Your task to perform on an android device: Go to wifi settings Image 0: 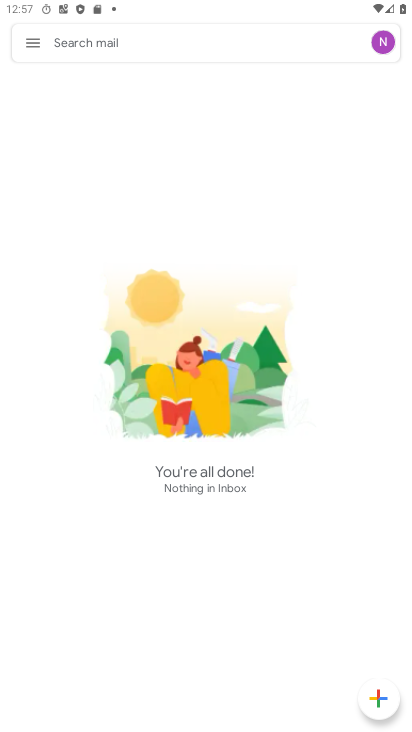
Step 0: press home button
Your task to perform on an android device: Go to wifi settings Image 1: 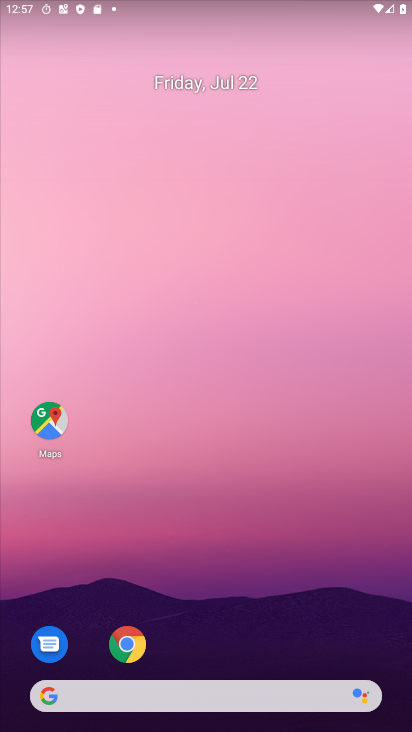
Step 1: drag from (228, 669) to (299, 58)
Your task to perform on an android device: Go to wifi settings Image 2: 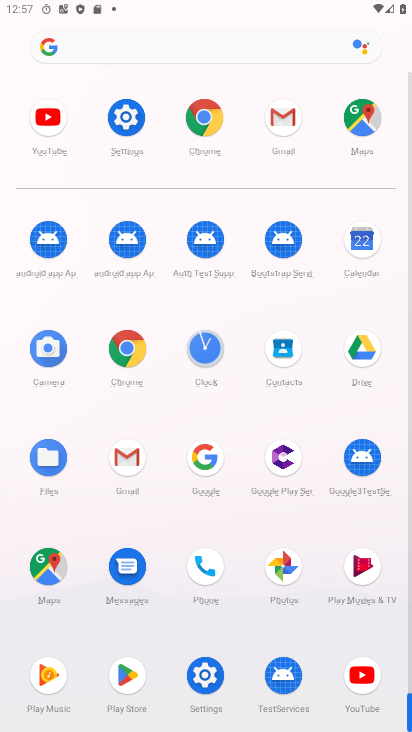
Step 2: click (137, 128)
Your task to perform on an android device: Go to wifi settings Image 3: 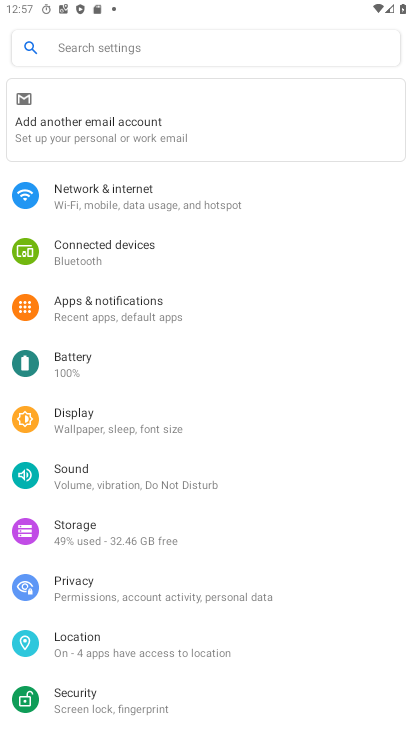
Step 3: click (134, 198)
Your task to perform on an android device: Go to wifi settings Image 4: 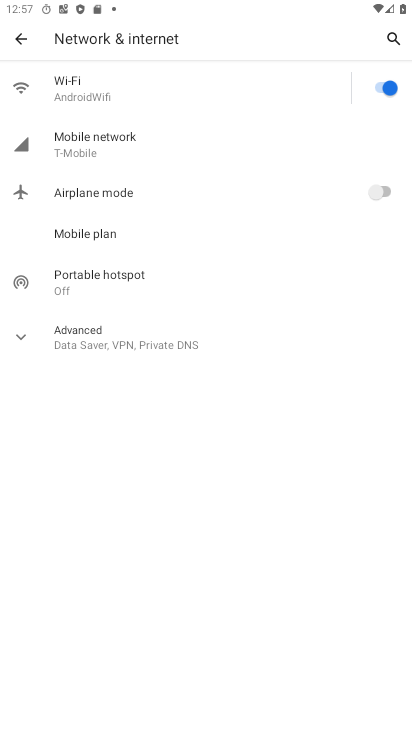
Step 4: click (165, 96)
Your task to perform on an android device: Go to wifi settings Image 5: 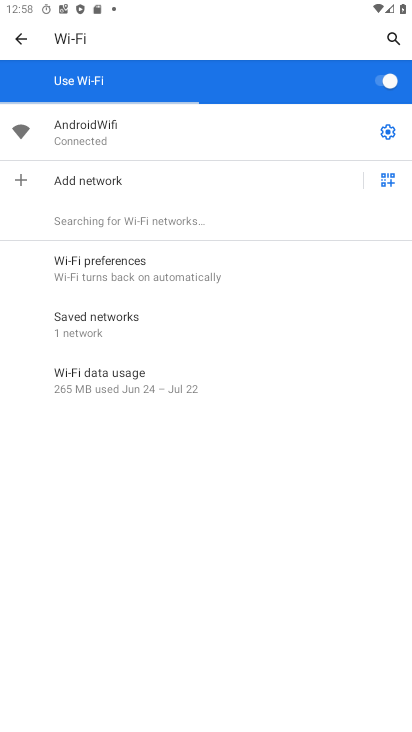
Step 5: task complete